Your task to perform on an android device: turn smart compose on in the gmail app Image 0: 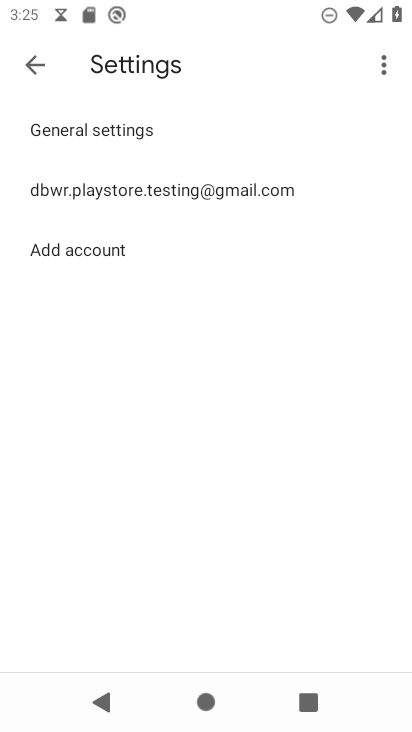
Step 0: click (203, 190)
Your task to perform on an android device: turn smart compose on in the gmail app Image 1: 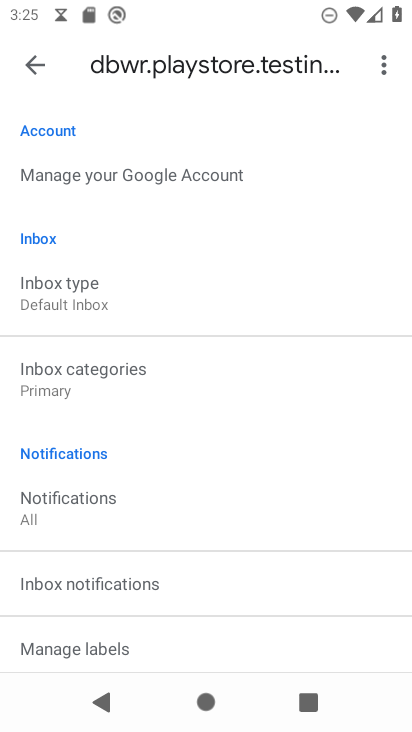
Step 1: task complete